Your task to perform on an android device: Open calendar and show me the second week of next month Image 0: 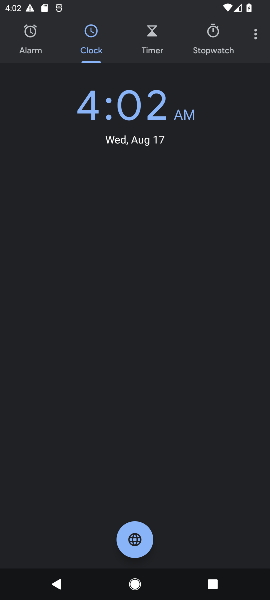
Step 0: press home button
Your task to perform on an android device: Open calendar and show me the second week of next month Image 1: 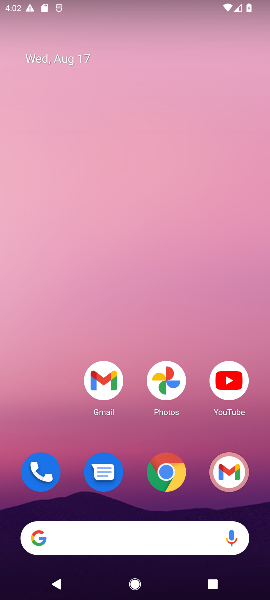
Step 1: drag from (151, 508) to (143, 13)
Your task to perform on an android device: Open calendar and show me the second week of next month Image 2: 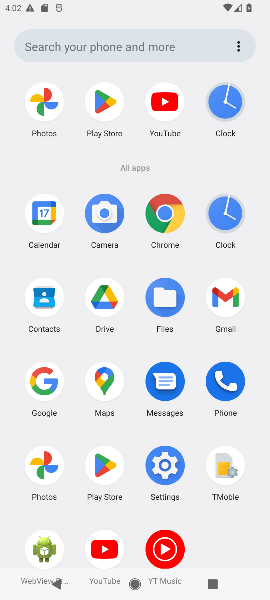
Step 2: click (41, 227)
Your task to perform on an android device: Open calendar and show me the second week of next month Image 3: 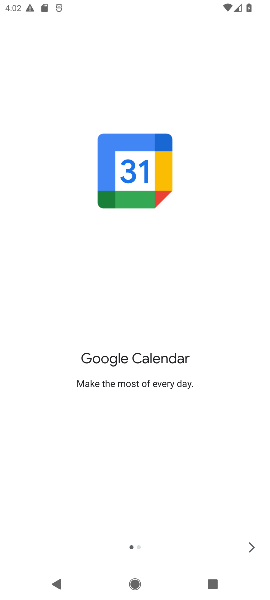
Step 3: click (245, 554)
Your task to perform on an android device: Open calendar and show me the second week of next month Image 4: 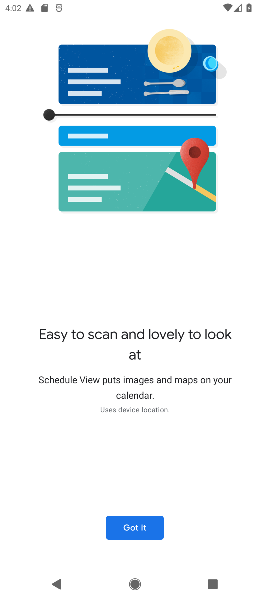
Step 4: click (147, 520)
Your task to perform on an android device: Open calendar and show me the second week of next month Image 5: 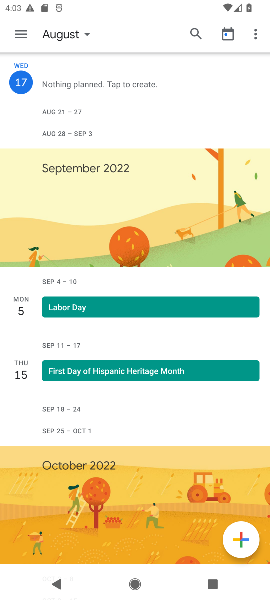
Step 5: click (65, 34)
Your task to perform on an android device: Open calendar and show me the second week of next month Image 6: 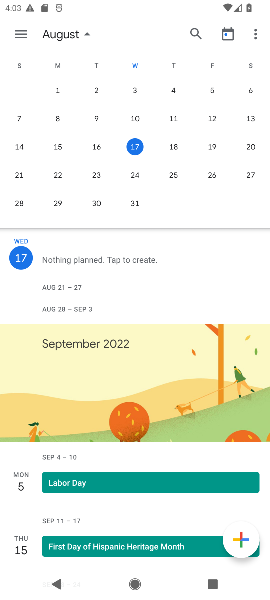
Step 6: drag from (191, 152) to (1, 133)
Your task to perform on an android device: Open calendar and show me the second week of next month Image 7: 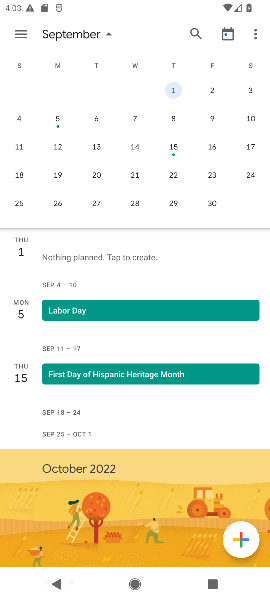
Step 7: click (15, 36)
Your task to perform on an android device: Open calendar and show me the second week of next month Image 8: 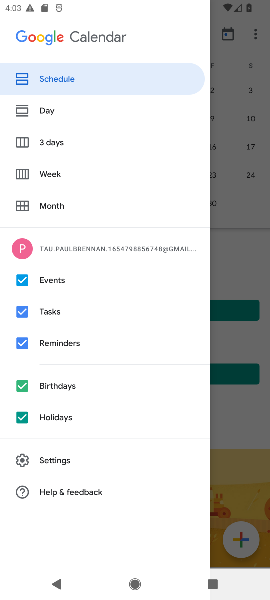
Step 8: click (52, 169)
Your task to perform on an android device: Open calendar and show me the second week of next month Image 9: 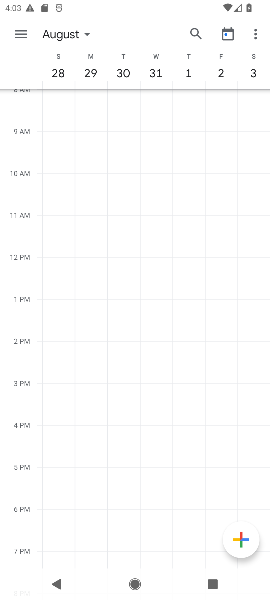
Step 9: task complete